Your task to perform on an android device: delete browsing data in the chrome app Image 0: 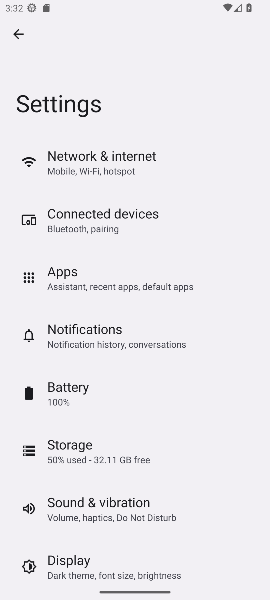
Step 0: press home button
Your task to perform on an android device: delete browsing data in the chrome app Image 1: 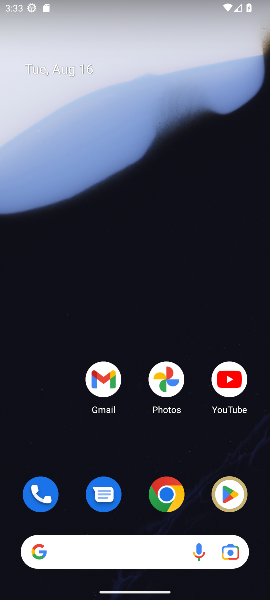
Step 1: click (157, 493)
Your task to perform on an android device: delete browsing data in the chrome app Image 2: 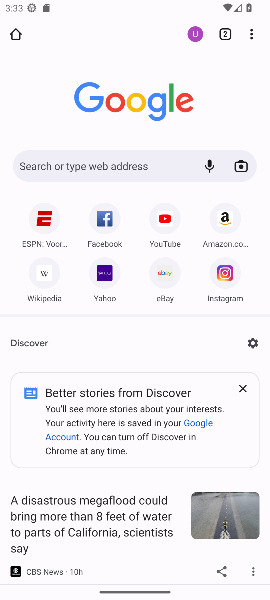
Step 2: click (246, 33)
Your task to perform on an android device: delete browsing data in the chrome app Image 3: 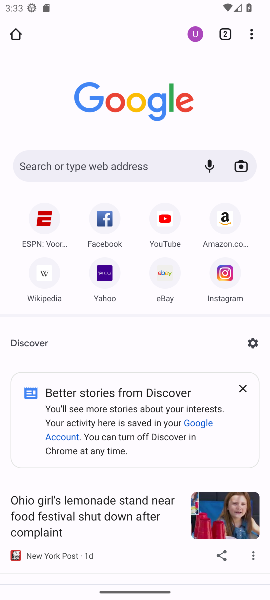
Step 3: click (250, 35)
Your task to perform on an android device: delete browsing data in the chrome app Image 4: 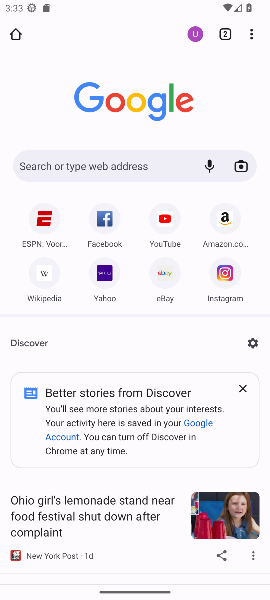
Step 4: drag from (249, 35) to (130, 138)
Your task to perform on an android device: delete browsing data in the chrome app Image 5: 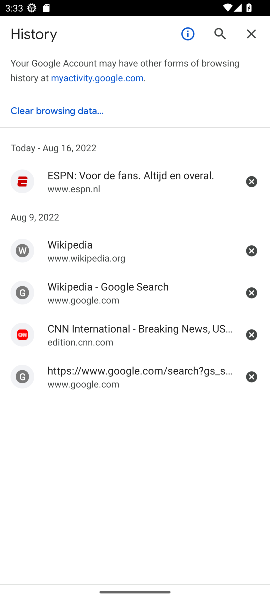
Step 5: click (58, 118)
Your task to perform on an android device: delete browsing data in the chrome app Image 6: 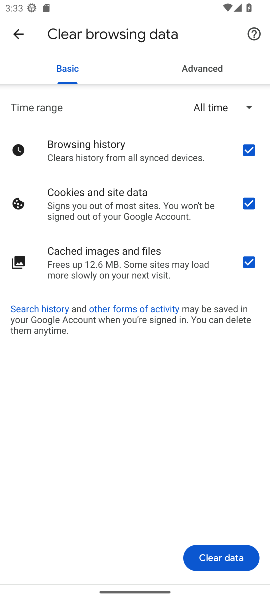
Step 6: click (209, 558)
Your task to perform on an android device: delete browsing data in the chrome app Image 7: 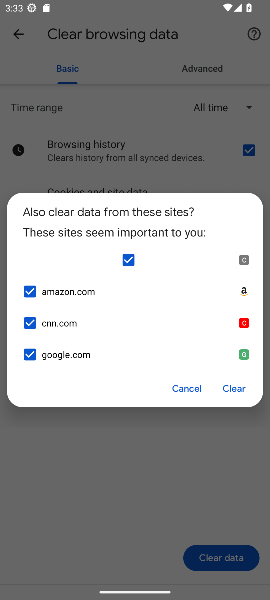
Step 7: click (240, 384)
Your task to perform on an android device: delete browsing data in the chrome app Image 8: 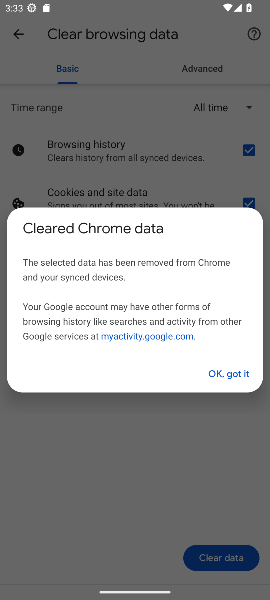
Step 8: click (250, 375)
Your task to perform on an android device: delete browsing data in the chrome app Image 9: 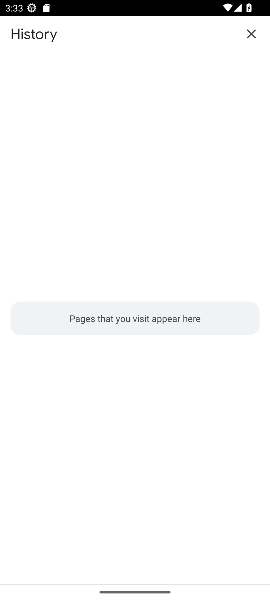
Step 9: task complete